Your task to perform on an android device: set an alarm Image 0: 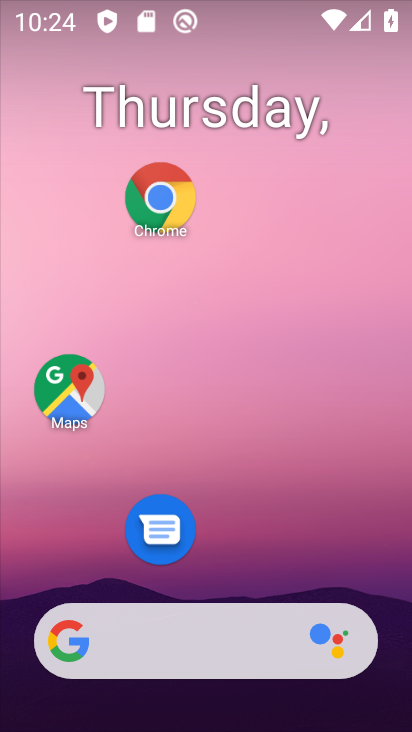
Step 0: drag from (279, 502) to (211, 5)
Your task to perform on an android device: set an alarm Image 1: 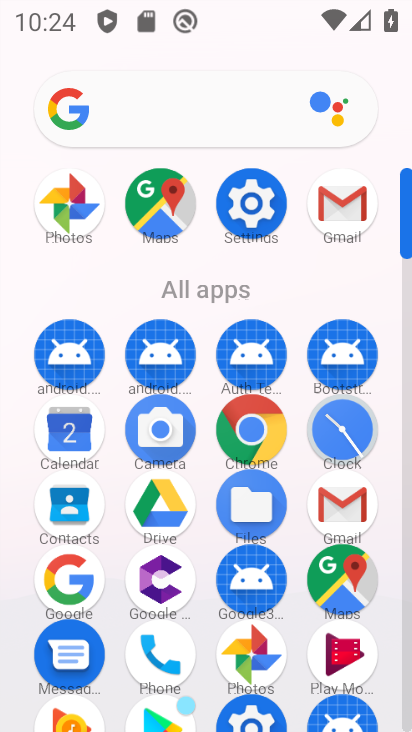
Step 1: click (331, 418)
Your task to perform on an android device: set an alarm Image 2: 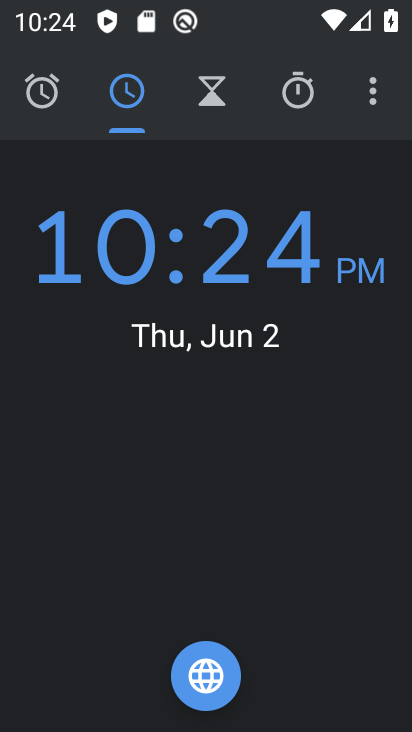
Step 2: click (39, 84)
Your task to perform on an android device: set an alarm Image 3: 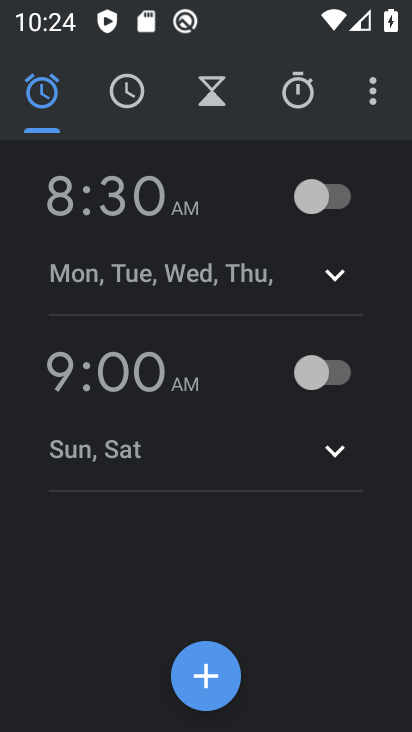
Step 3: click (210, 677)
Your task to perform on an android device: set an alarm Image 4: 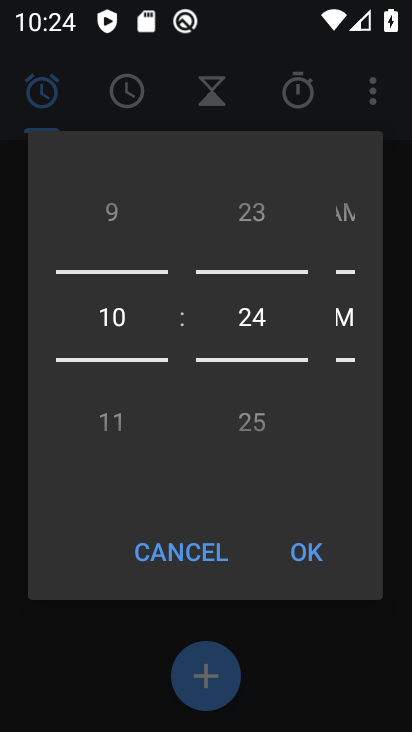
Step 4: click (308, 554)
Your task to perform on an android device: set an alarm Image 5: 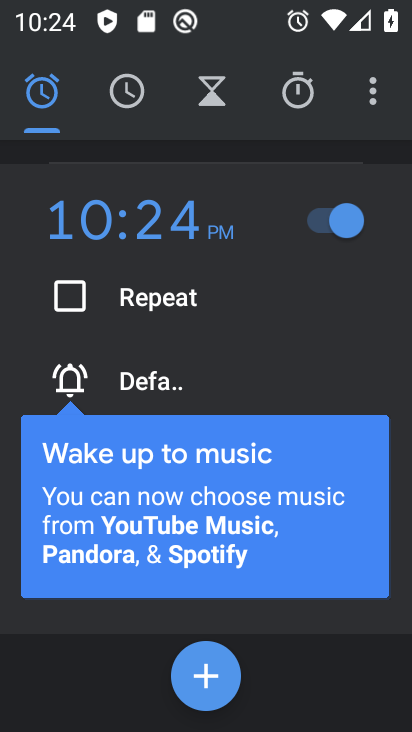
Step 5: task complete